Your task to perform on an android device: change notifications settings Image 0: 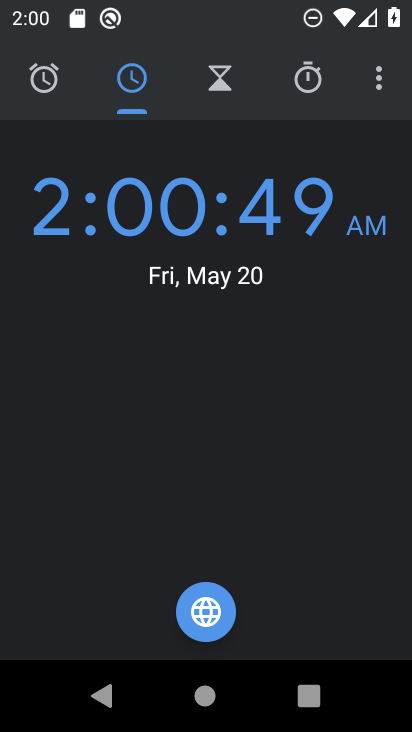
Step 0: press home button
Your task to perform on an android device: change notifications settings Image 1: 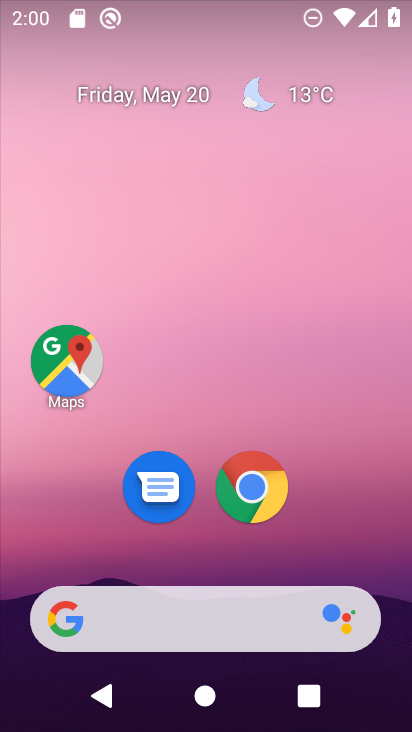
Step 1: drag from (219, 556) to (255, 175)
Your task to perform on an android device: change notifications settings Image 2: 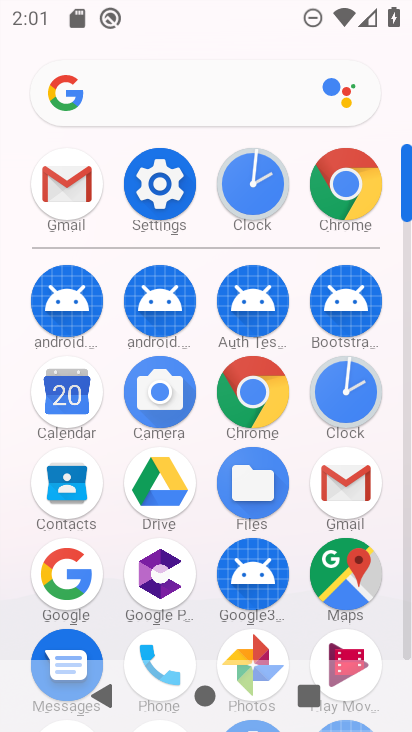
Step 2: click (160, 178)
Your task to perform on an android device: change notifications settings Image 3: 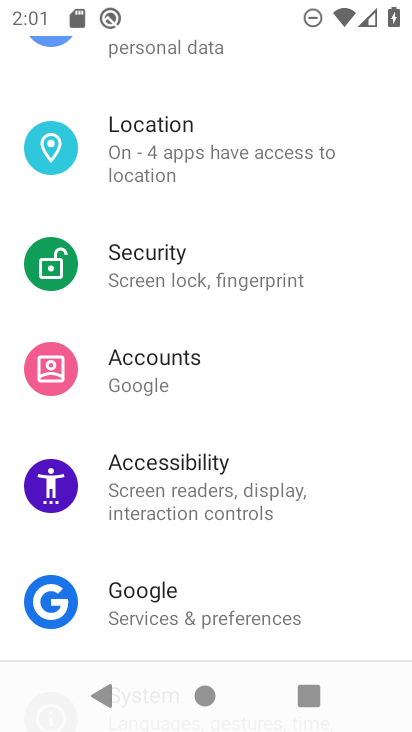
Step 3: drag from (219, 105) to (243, 532)
Your task to perform on an android device: change notifications settings Image 4: 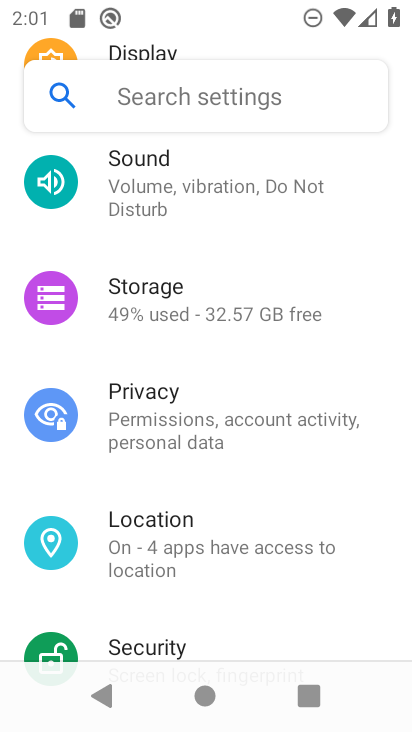
Step 4: drag from (199, 183) to (209, 624)
Your task to perform on an android device: change notifications settings Image 5: 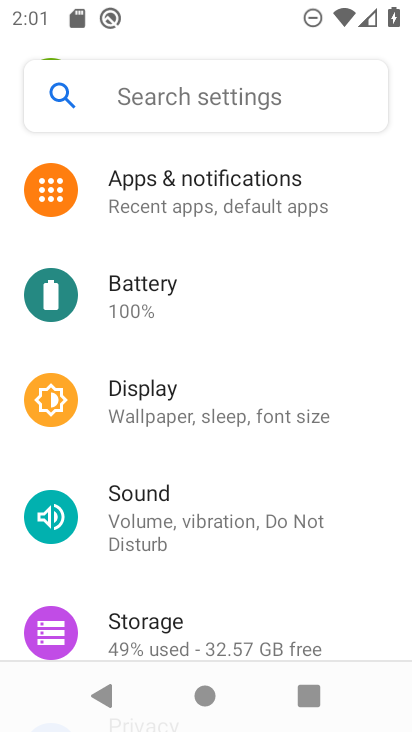
Step 5: drag from (217, 144) to (237, 384)
Your task to perform on an android device: change notifications settings Image 6: 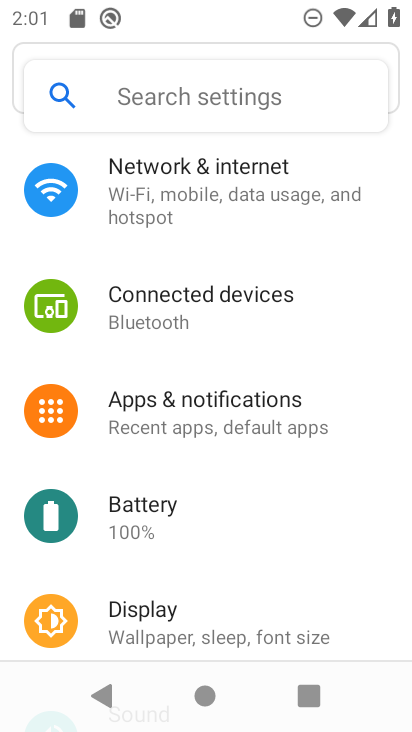
Step 6: click (259, 405)
Your task to perform on an android device: change notifications settings Image 7: 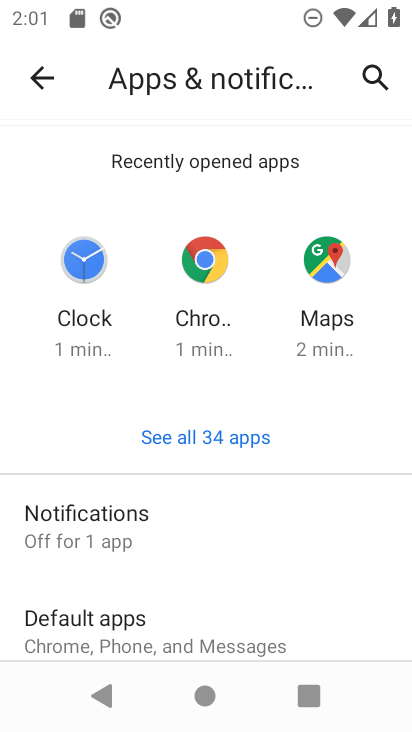
Step 7: click (143, 519)
Your task to perform on an android device: change notifications settings Image 8: 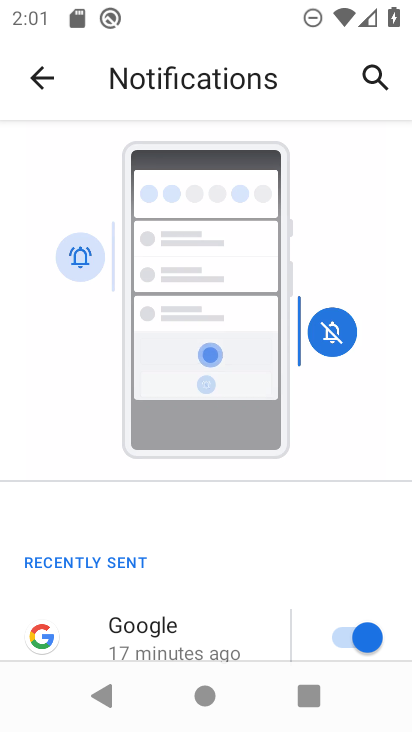
Step 8: drag from (245, 606) to (262, 352)
Your task to perform on an android device: change notifications settings Image 9: 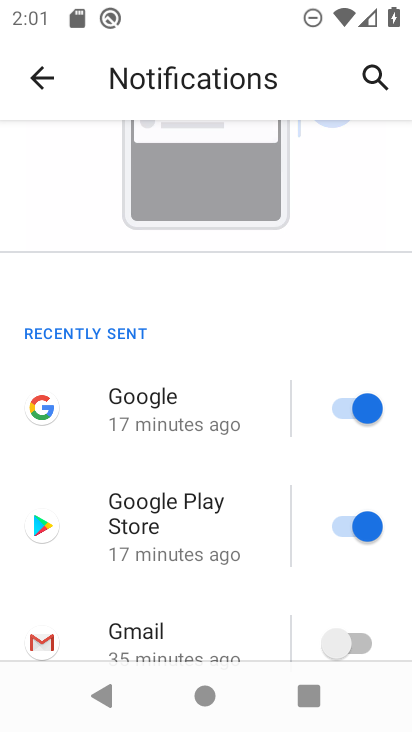
Step 9: drag from (259, 623) to (302, 331)
Your task to perform on an android device: change notifications settings Image 10: 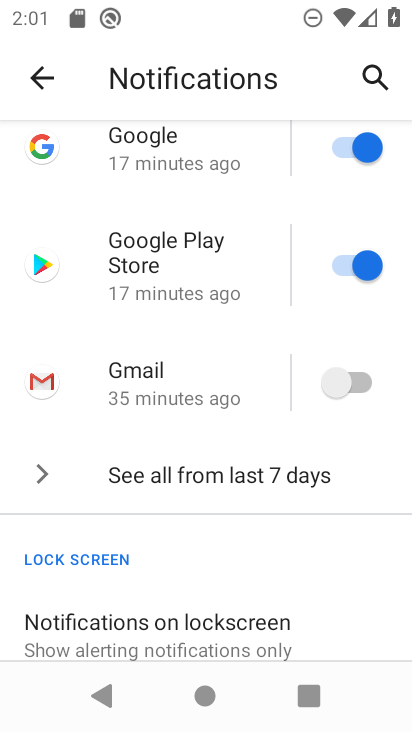
Step 10: drag from (273, 608) to (270, 384)
Your task to perform on an android device: change notifications settings Image 11: 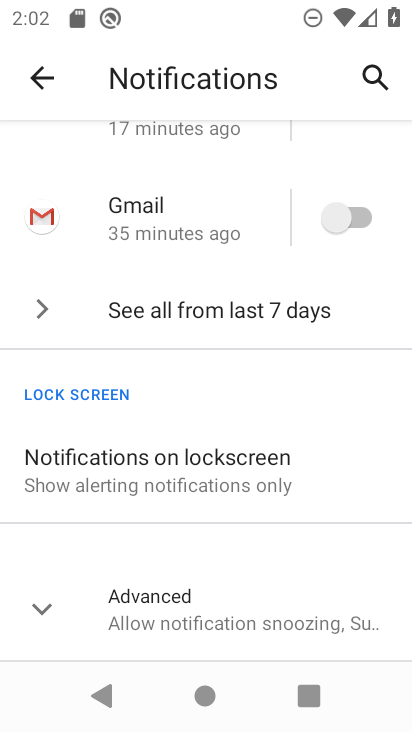
Step 11: click (44, 608)
Your task to perform on an android device: change notifications settings Image 12: 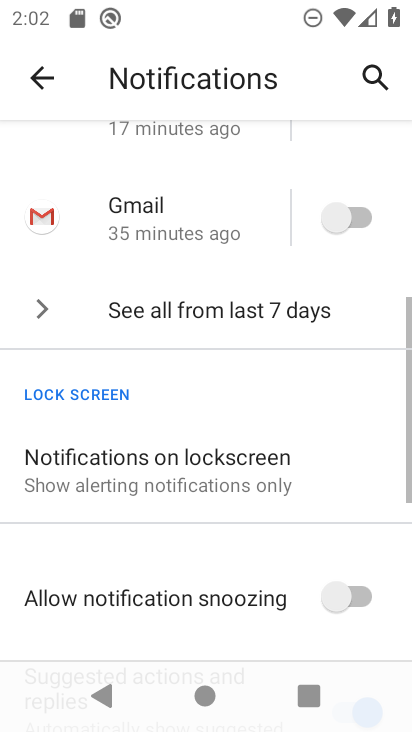
Step 12: task complete